Your task to perform on an android device: turn on data saver in the chrome app Image 0: 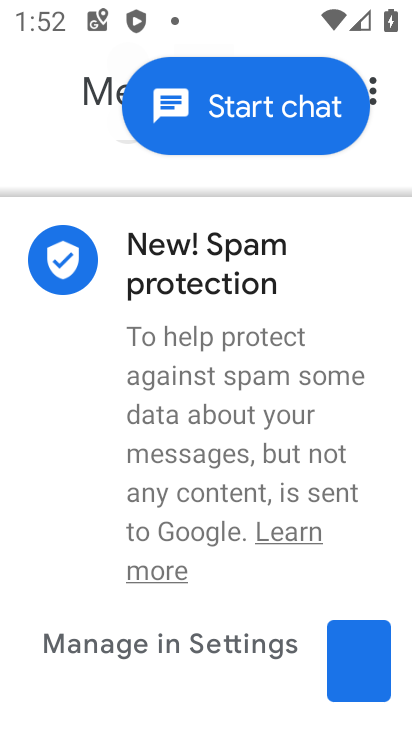
Step 0: press home button
Your task to perform on an android device: turn on data saver in the chrome app Image 1: 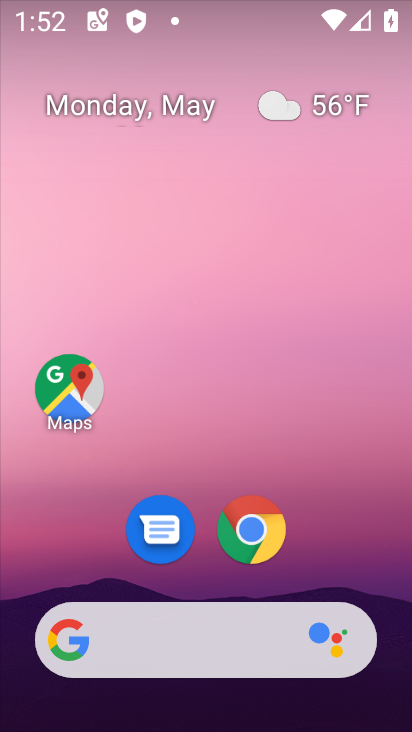
Step 1: click (251, 533)
Your task to perform on an android device: turn on data saver in the chrome app Image 2: 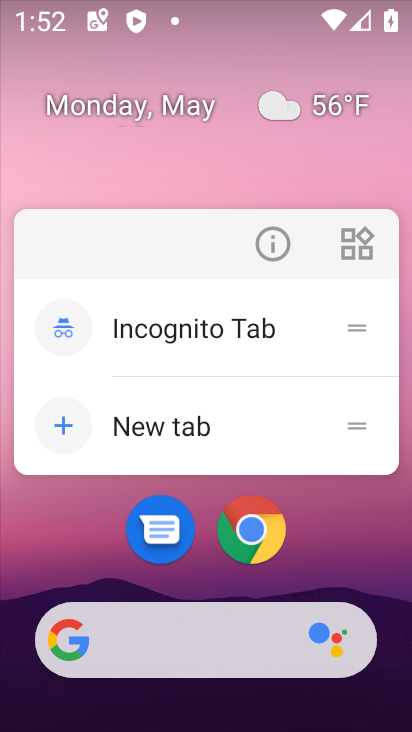
Step 2: click (251, 533)
Your task to perform on an android device: turn on data saver in the chrome app Image 3: 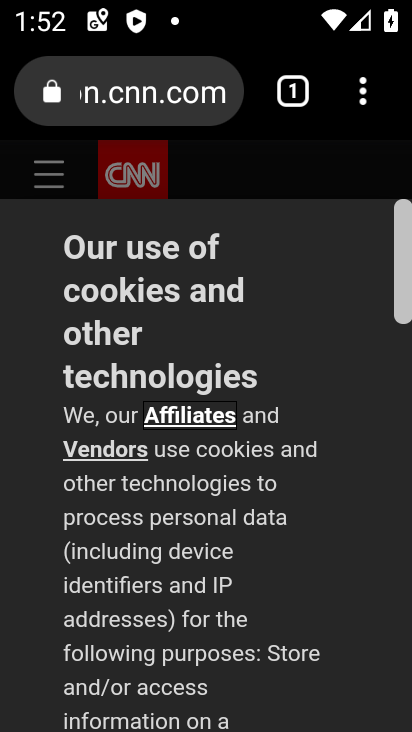
Step 3: click (368, 82)
Your task to perform on an android device: turn on data saver in the chrome app Image 4: 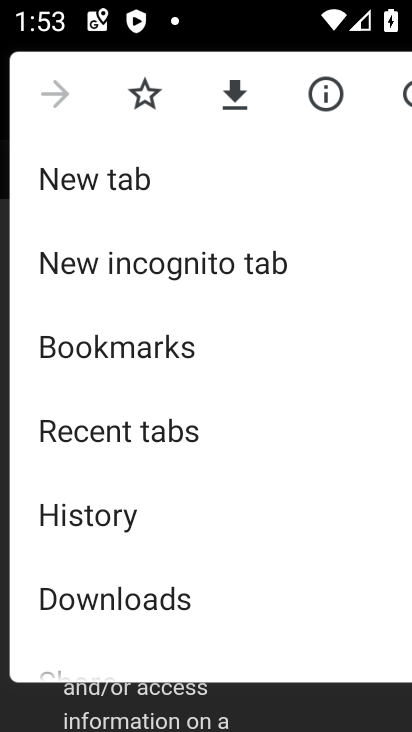
Step 4: drag from (159, 555) to (146, 315)
Your task to perform on an android device: turn on data saver in the chrome app Image 5: 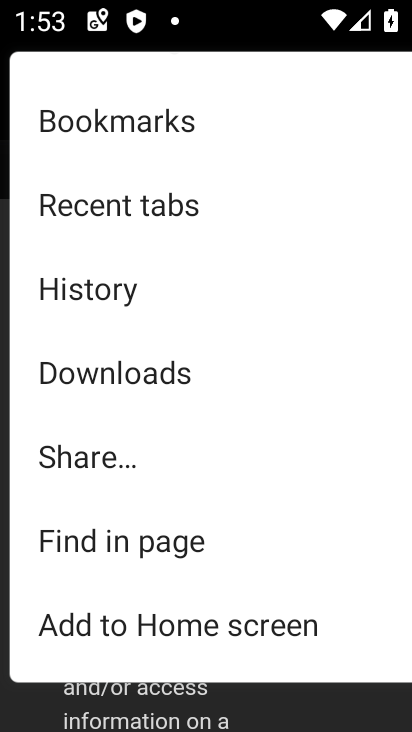
Step 5: drag from (147, 590) to (211, 270)
Your task to perform on an android device: turn on data saver in the chrome app Image 6: 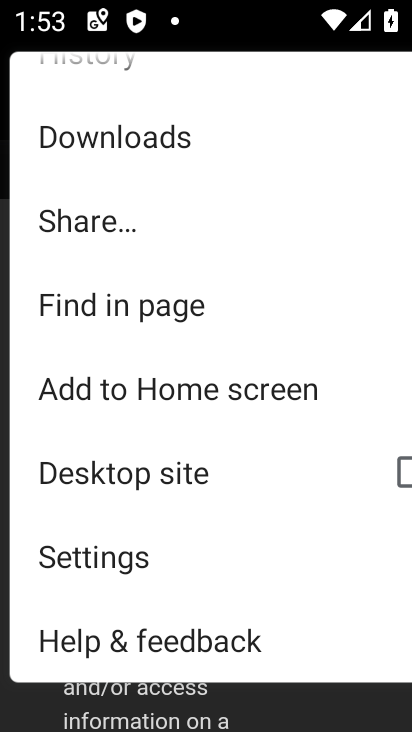
Step 6: click (184, 555)
Your task to perform on an android device: turn on data saver in the chrome app Image 7: 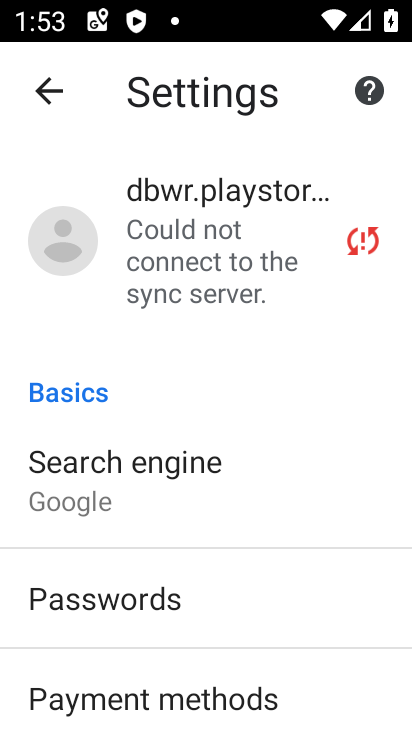
Step 7: drag from (218, 626) to (250, 366)
Your task to perform on an android device: turn on data saver in the chrome app Image 8: 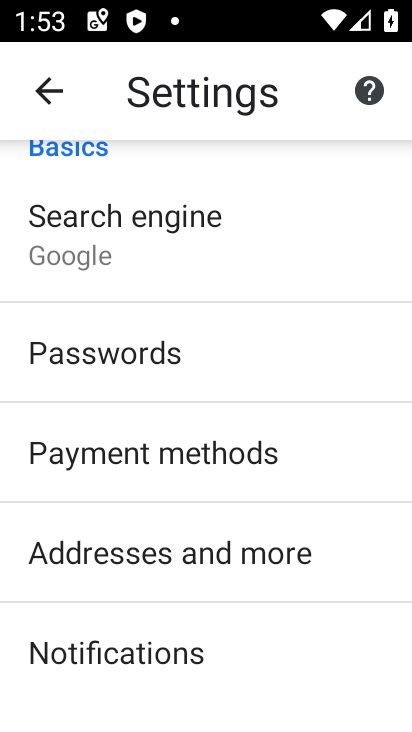
Step 8: drag from (266, 662) to (285, 403)
Your task to perform on an android device: turn on data saver in the chrome app Image 9: 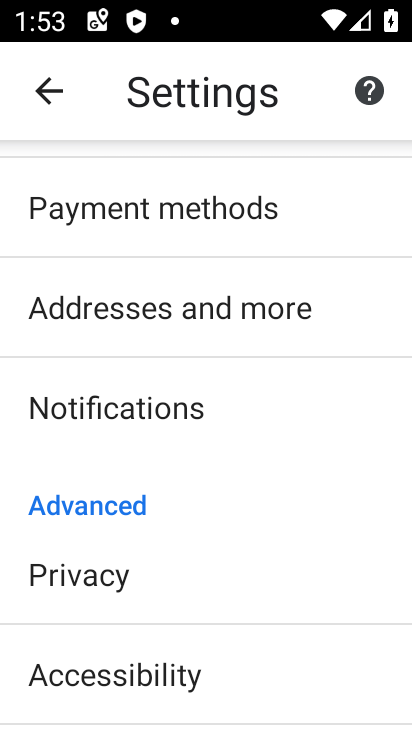
Step 9: drag from (197, 625) to (231, 366)
Your task to perform on an android device: turn on data saver in the chrome app Image 10: 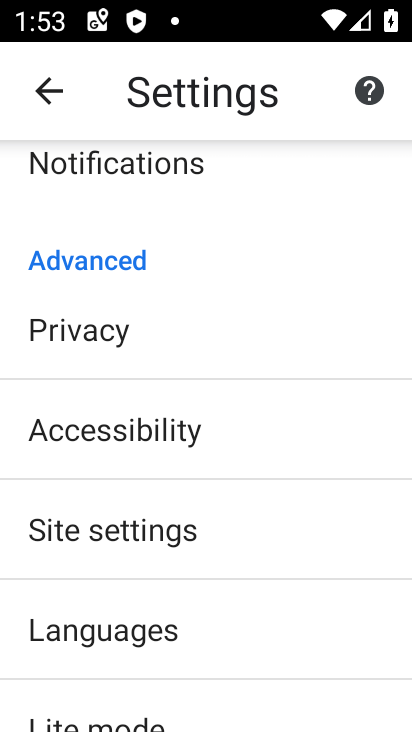
Step 10: drag from (162, 654) to (227, 437)
Your task to perform on an android device: turn on data saver in the chrome app Image 11: 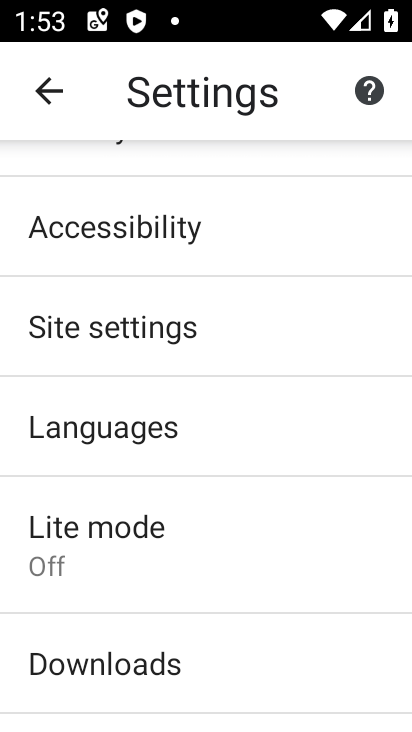
Step 11: click (163, 530)
Your task to perform on an android device: turn on data saver in the chrome app Image 12: 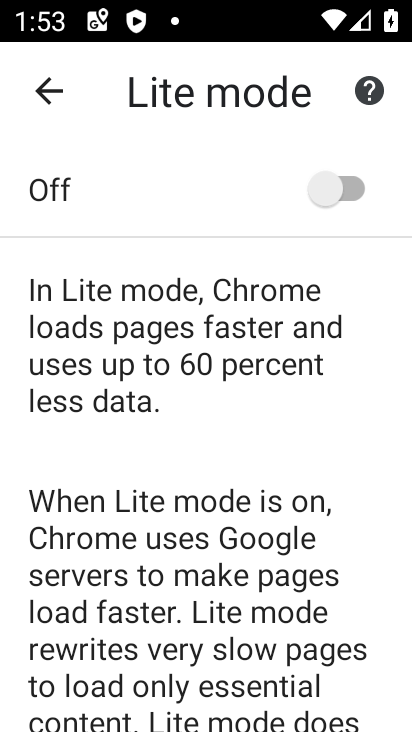
Step 12: click (338, 168)
Your task to perform on an android device: turn on data saver in the chrome app Image 13: 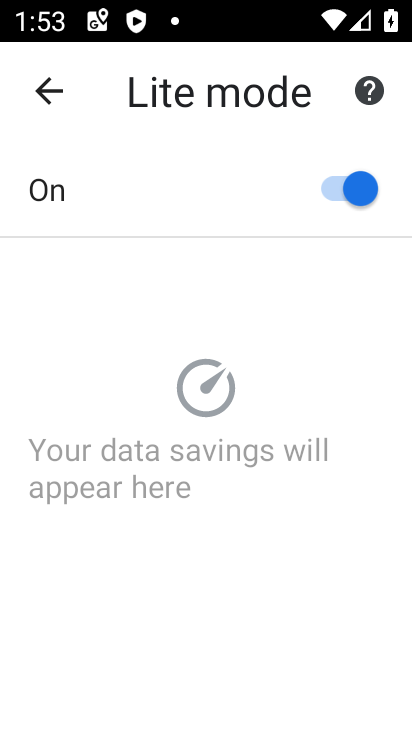
Step 13: task complete